Your task to perform on an android device: turn on bluetooth scan Image 0: 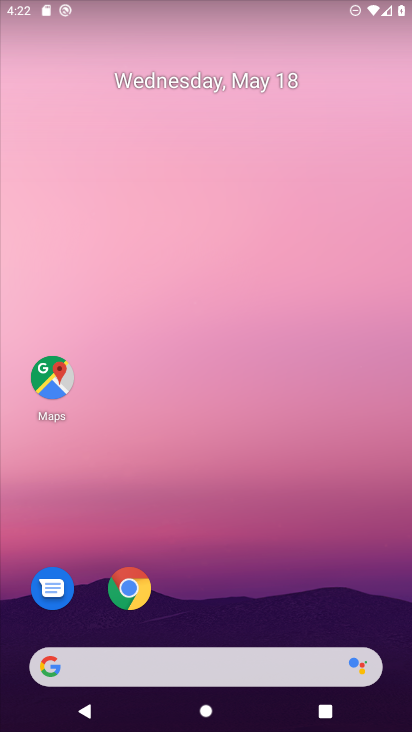
Step 0: drag from (291, 593) to (313, 24)
Your task to perform on an android device: turn on bluetooth scan Image 1: 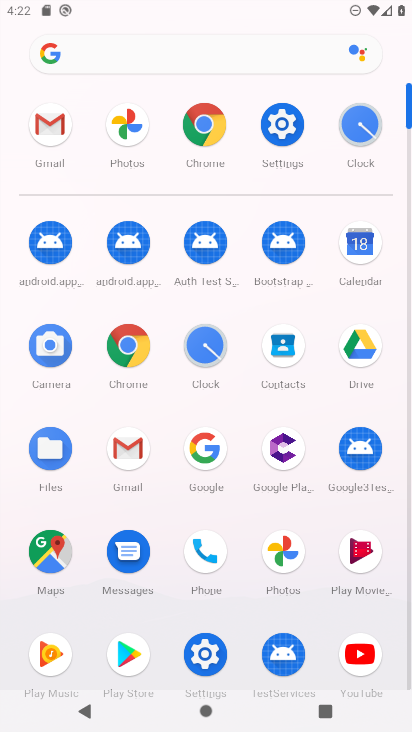
Step 1: click (276, 155)
Your task to perform on an android device: turn on bluetooth scan Image 2: 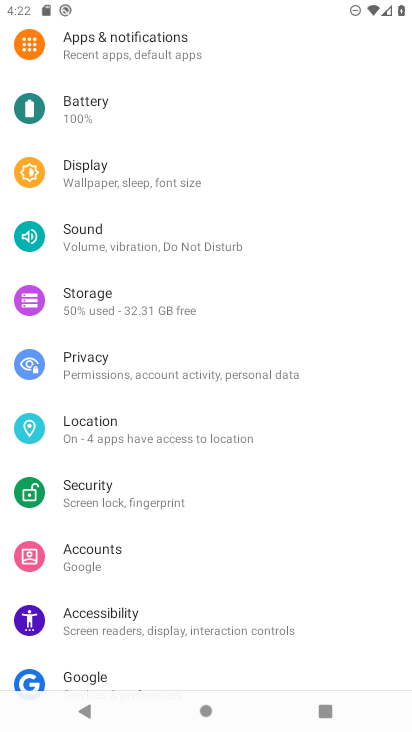
Step 2: click (158, 429)
Your task to perform on an android device: turn on bluetooth scan Image 3: 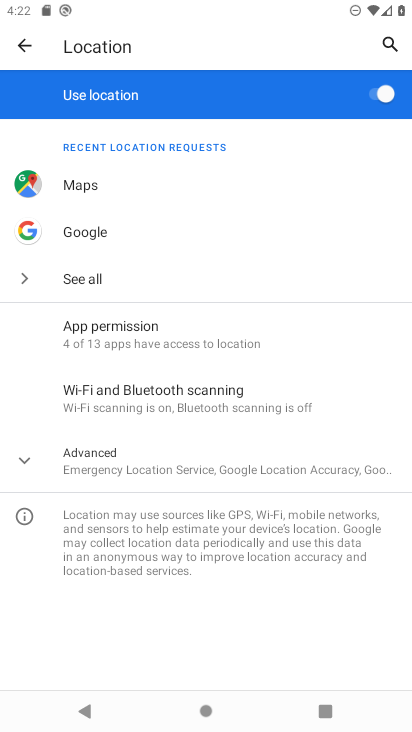
Step 3: click (147, 400)
Your task to perform on an android device: turn on bluetooth scan Image 4: 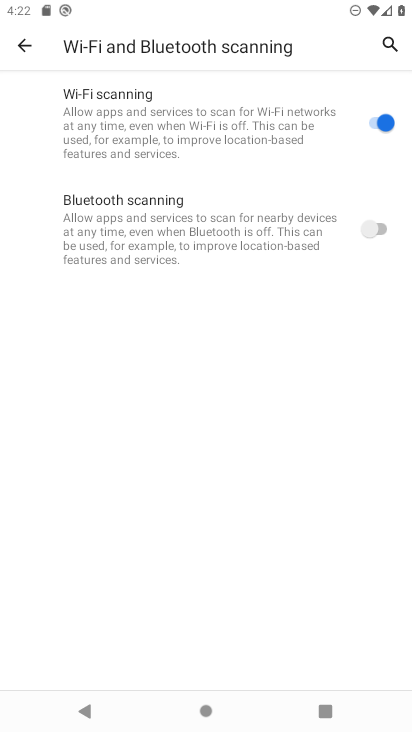
Step 4: click (386, 228)
Your task to perform on an android device: turn on bluetooth scan Image 5: 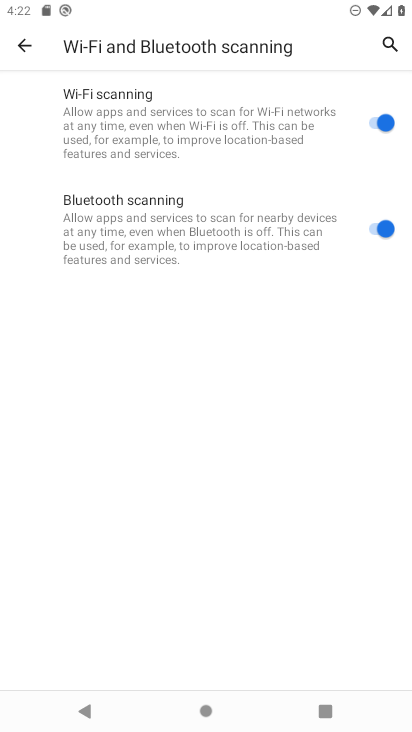
Step 5: task complete